Your task to perform on an android device: Open my contact list Image 0: 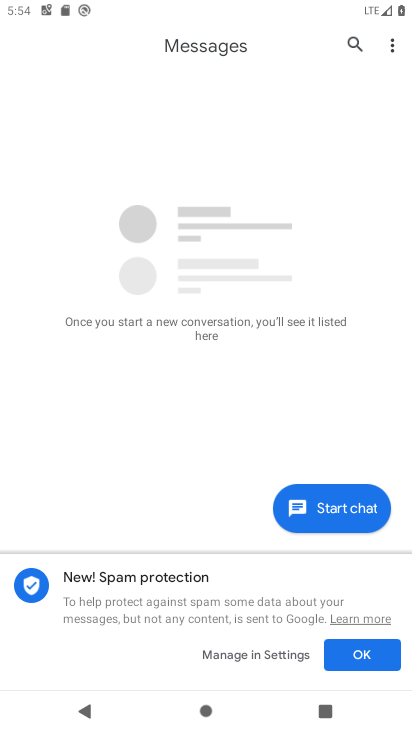
Step 0: press home button
Your task to perform on an android device: Open my contact list Image 1: 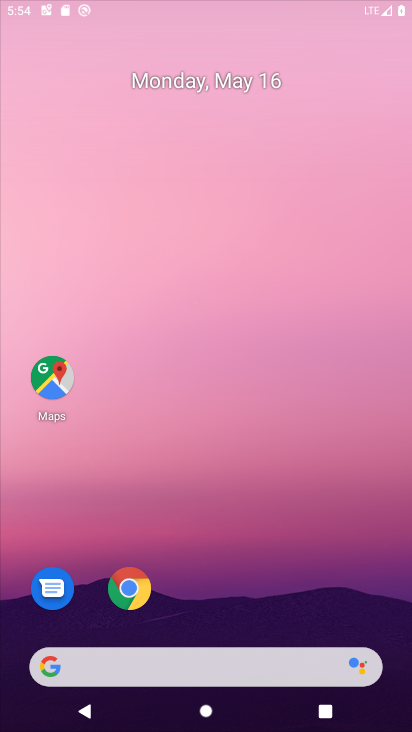
Step 1: drag from (248, 211) to (243, 95)
Your task to perform on an android device: Open my contact list Image 2: 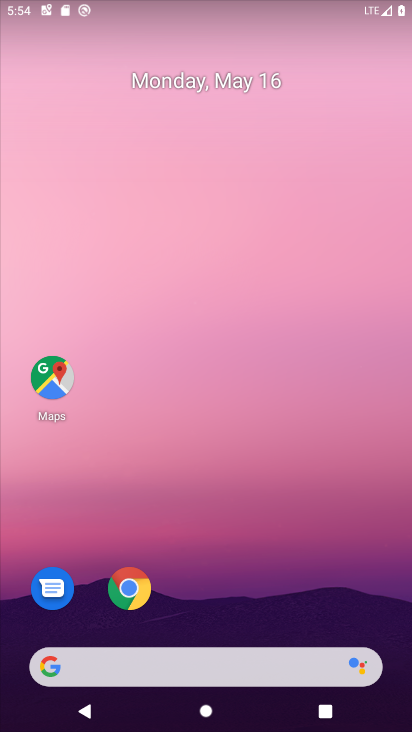
Step 2: drag from (240, 364) to (199, 1)
Your task to perform on an android device: Open my contact list Image 3: 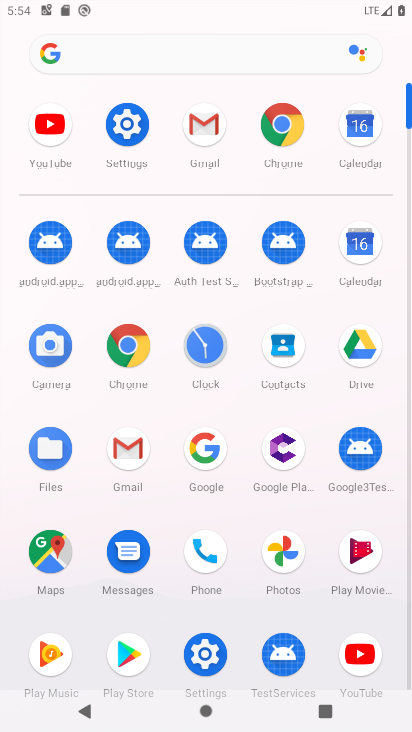
Step 3: click (281, 357)
Your task to perform on an android device: Open my contact list Image 4: 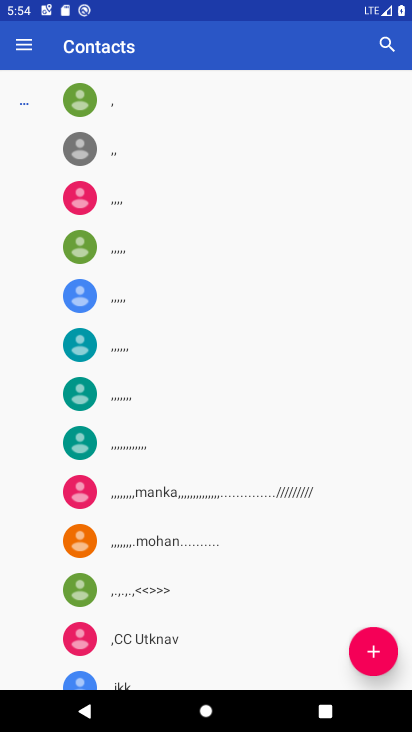
Step 4: task complete